Your task to perform on an android device: Show me productivity apps on the Play Store Image 0: 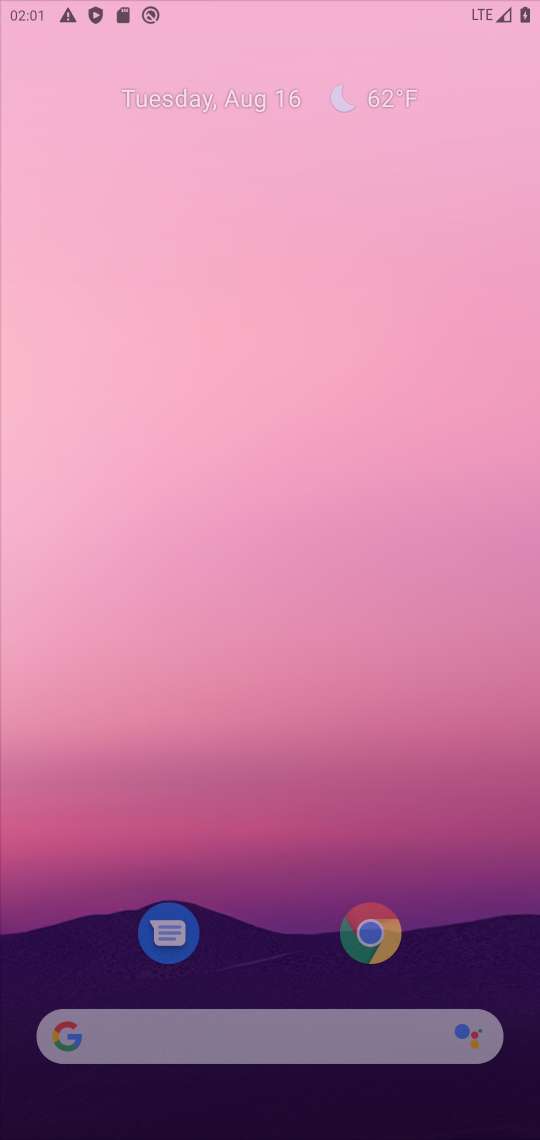
Step 0: press home button
Your task to perform on an android device: Show me productivity apps on the Play Store Image 1: 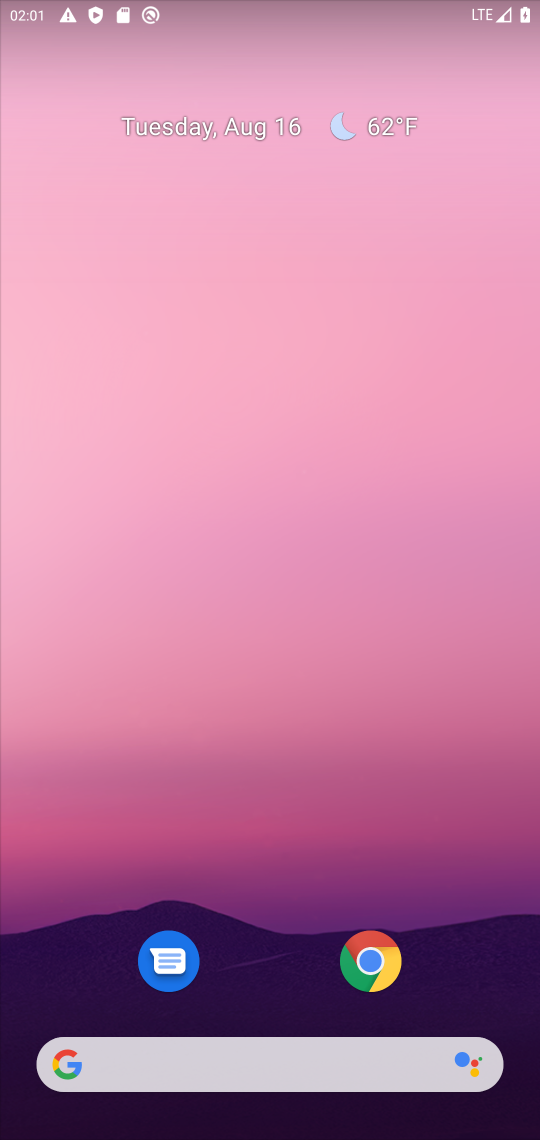
Step 1: drag from (284, 972) to (387, 100)
Your task to perform on an android device: Show me productivity apps on the Play Store Image 2: 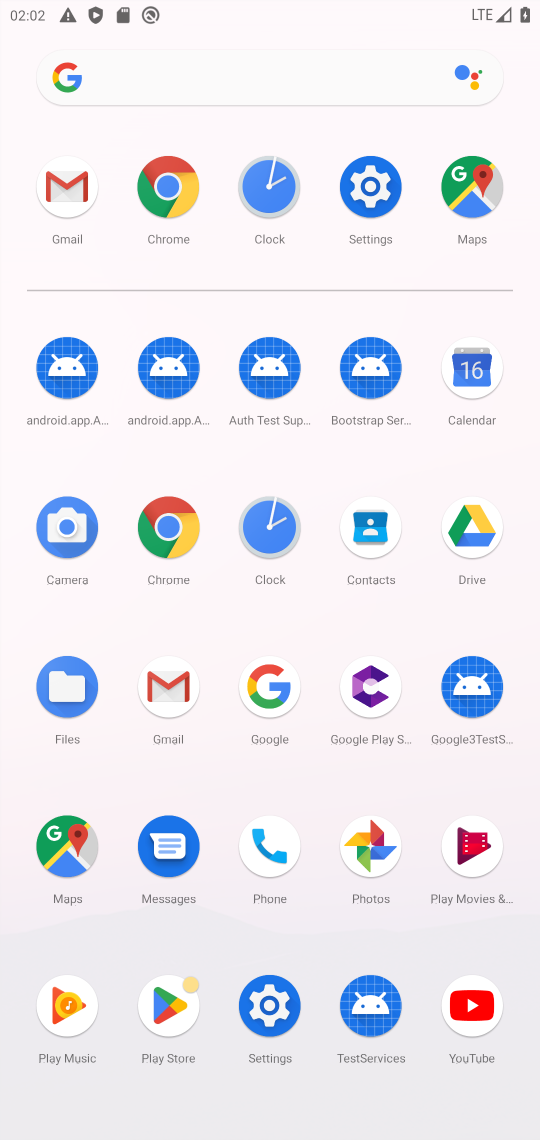
Step 2: click (175, 1014)
Your task to perform on an android device: Show me productivity apps on the Play Store Image 3: 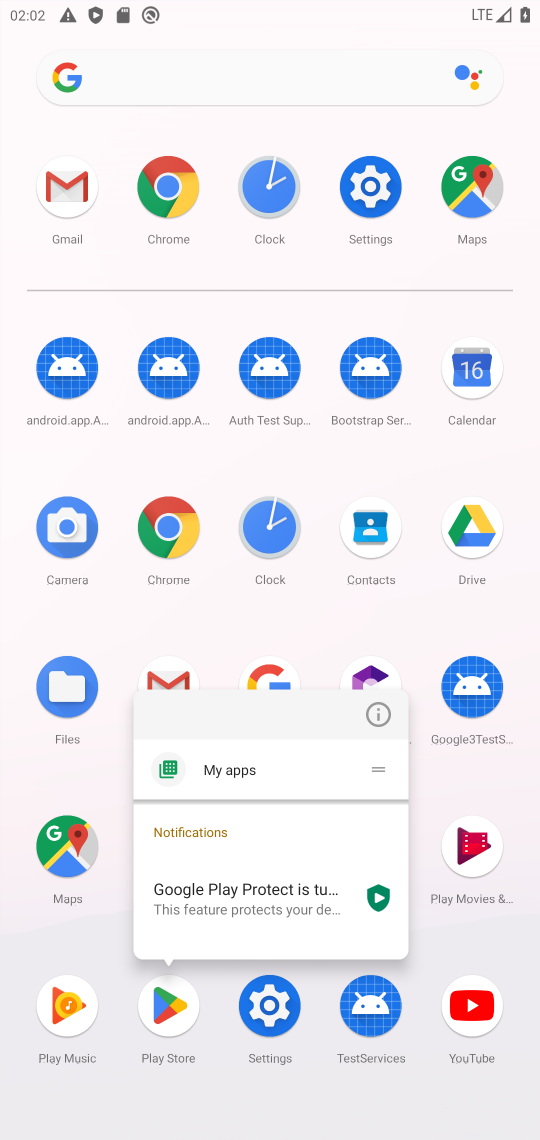
Step 3: click (176, 1020)
Your task to perform on an android device: Show me productivity apps on the Play Store Image 4: 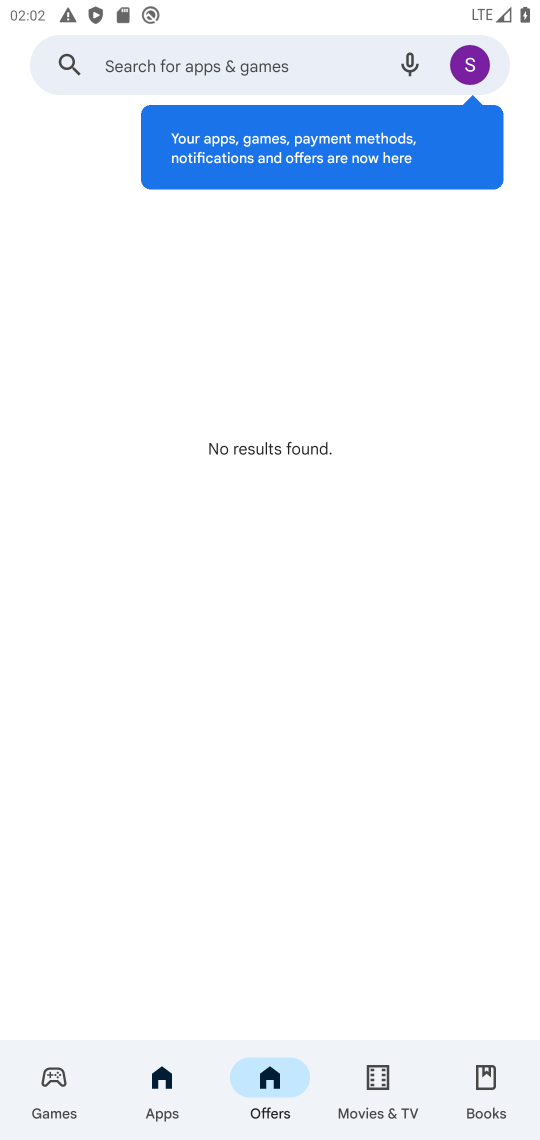
Step 4: click (259, 69)
Your task to perform on an android device: Show me productivity apps on the Play Store Image 5: 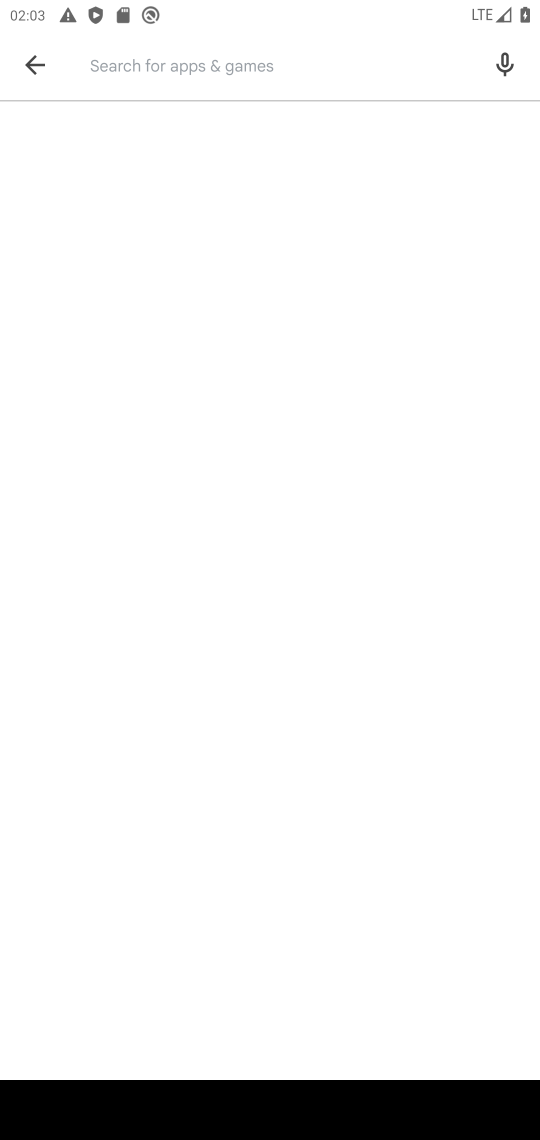
Step 5: type "productivity apps "
Your task to perform on an android device: Show me productivity apps on the Play Store Image 6: 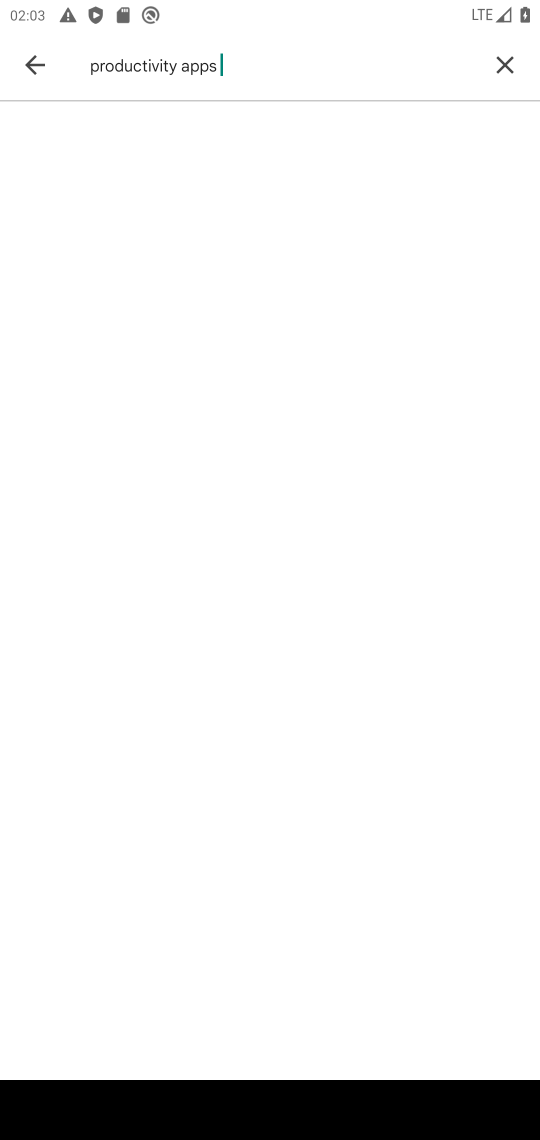
Step 6: type ""
Your task to perform on an android device: Show me productivity apps on the Play Store Image 7: 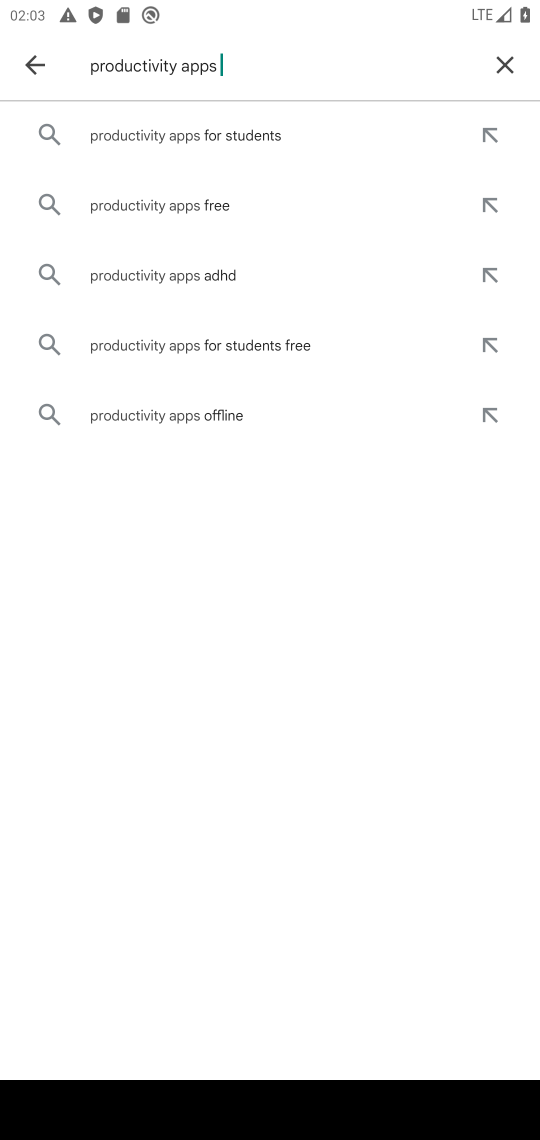
Step 7: click (183, 196)
Your task to perform on an android device: Show me productivity apps on the Play Store Image 8: 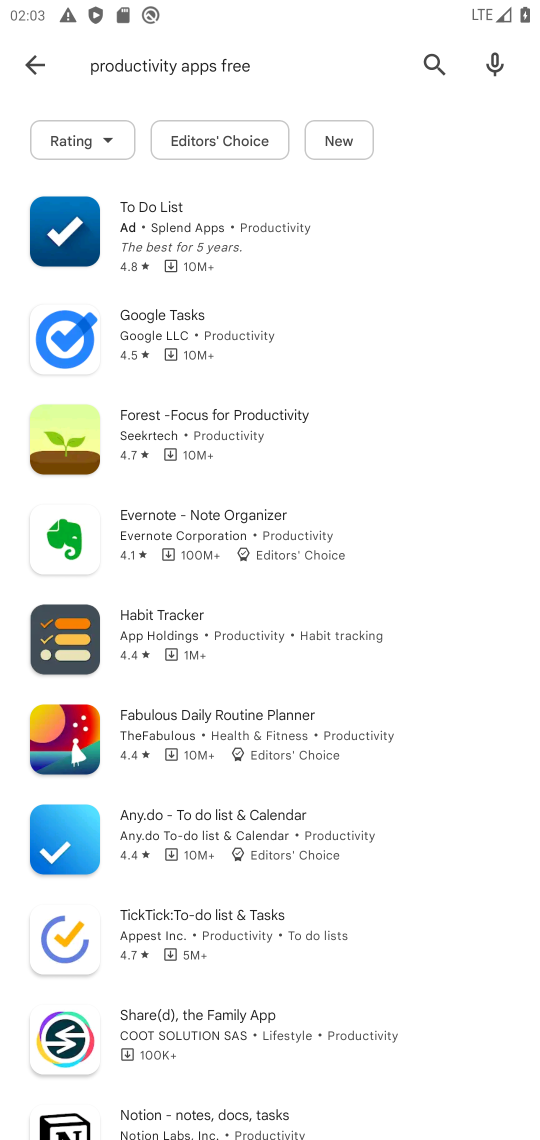
Step 8: task complete